Your task to perform on an android device: What's on my calendar today? Image 0: 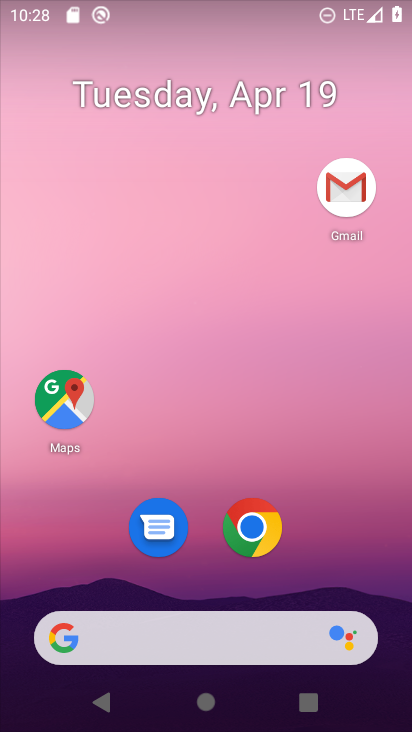
Step 0: drag from (372, 443) to (355, 108)
Your task to perform on an android device: What's on my calendar today? Image 1: 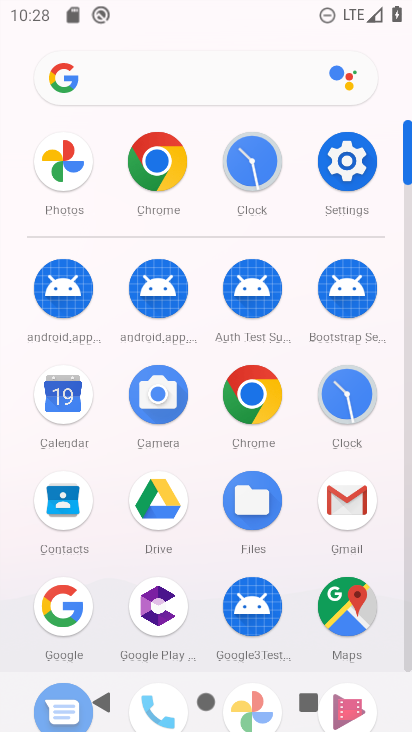
Step 1: click (68, 390)
Your task to perform on an android device: What's on my calendar today? Image 2: 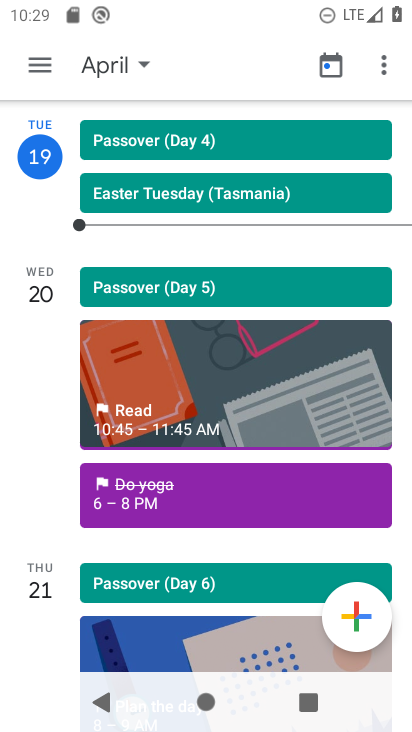
Step 2: task complete